Your task to perform on an android device: Open maps Image 0: 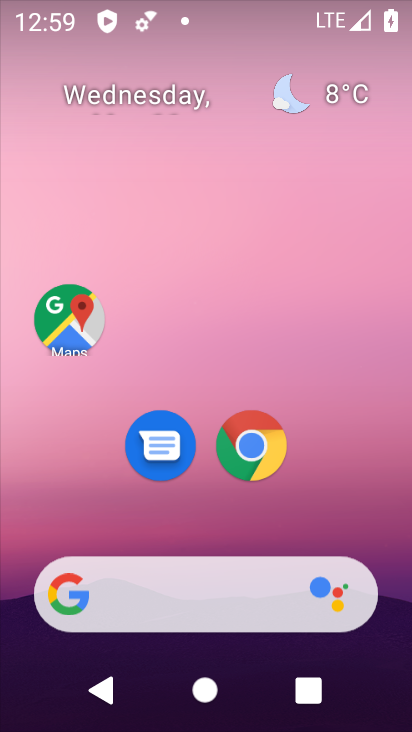
Step 0: click (86, 335)
Your task to perform on an android device: Open maps Image 1: 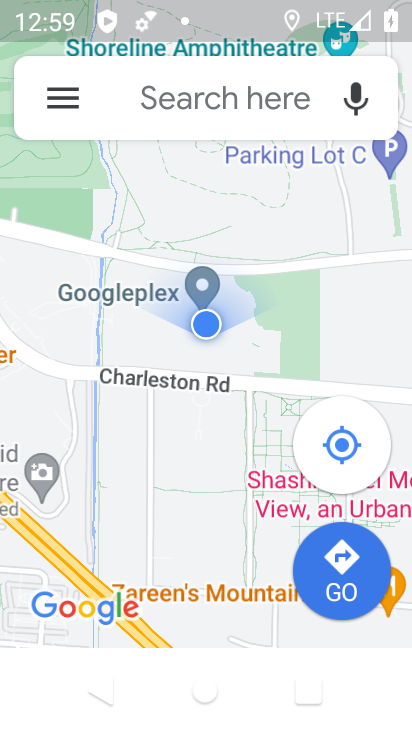
Step 1: task complete